Your task to perform on an android device: refresh tabs in the chrome app Image 0: 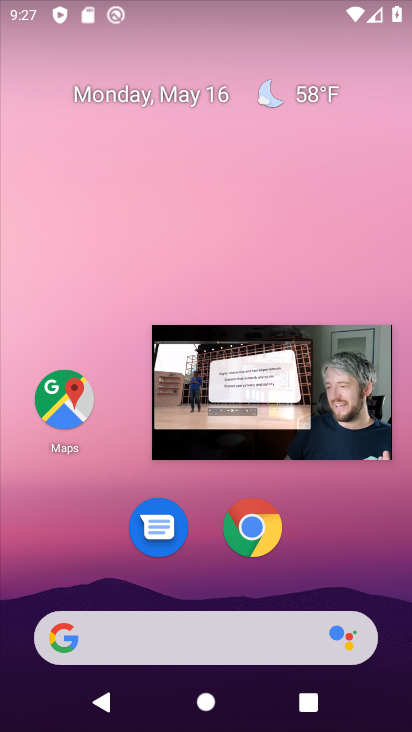
Step 0: click (300, 366)
Your task to perform on an android device: refresh tabs in the chrome app Image 1: 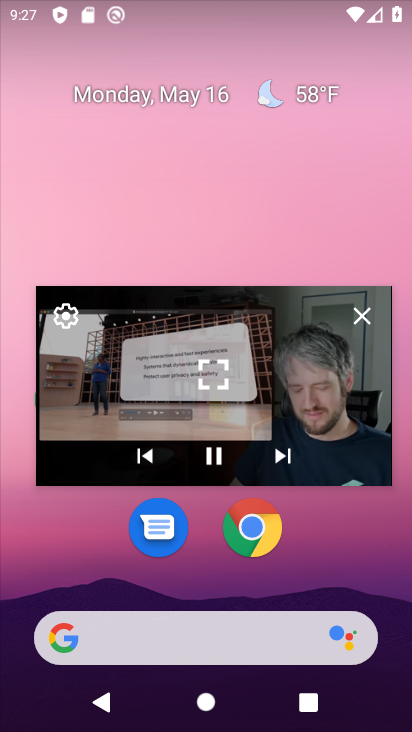
Step 1: click (363, 313)
Your task to perform on an android device: refresh tabs in the chrome app Image 2: 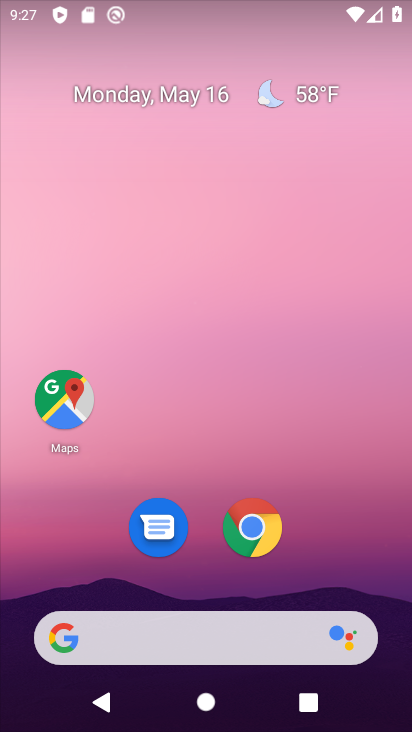
Step 2: click (245, 524)
Your task to perform on an android device: refresh tabs in the chrome app Image 3: 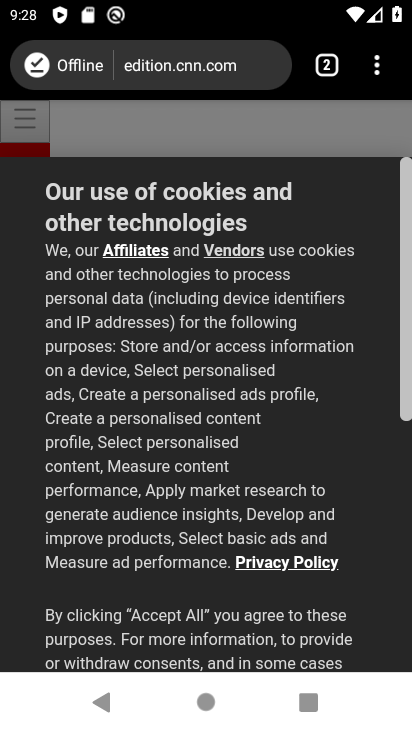
Step 3: click (375, 64)
Your task to perform on an android device: refresh tabs in the chrome app Image 4: 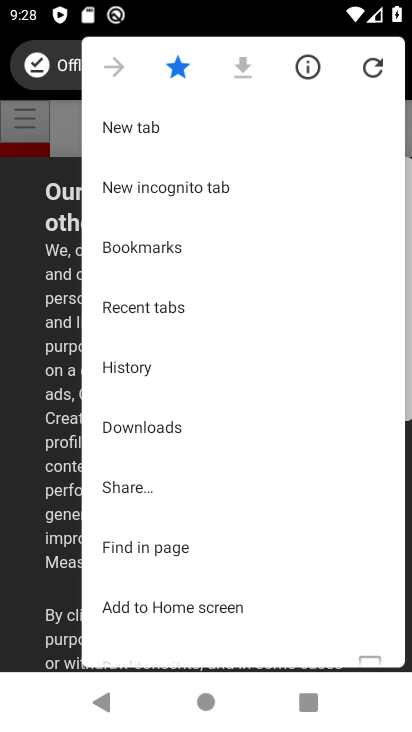
Step 4: click (133, 123)
Your task to perform on an android device: refresh tabs in the chrome app Image 5: 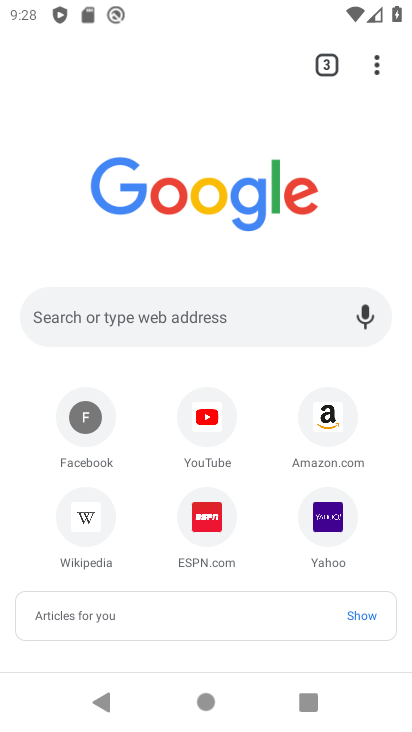
Step 5: task complete